Your task to perform on an android device: see sites visited before in the chrome app Image 0: 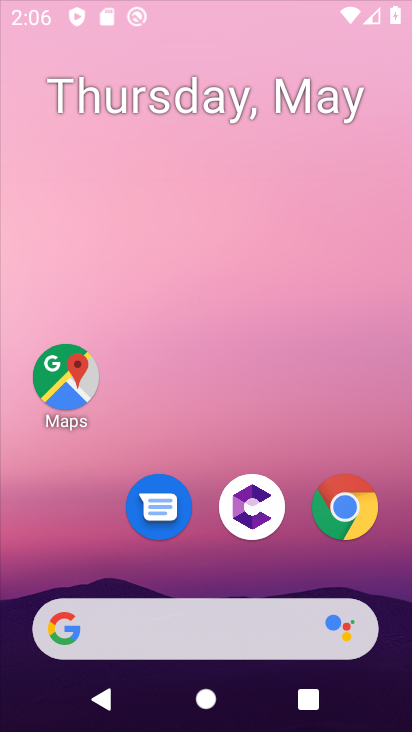
Step 0: press home button
Your task to perform on an android device: see sites visited before in the chrome app Image 1: 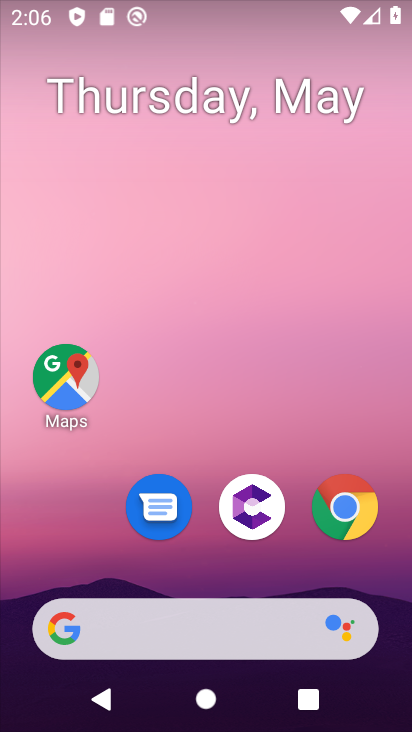
Step 1: click (338, 529)
Your task to perform on an android device: see sites visited before in the chrome app Image 2: 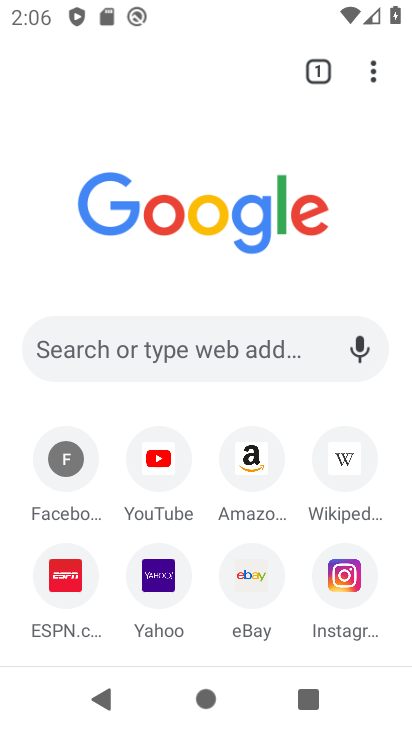
Step 2: task complete